Your task to perform on an android device: What is the news today? Image 0: 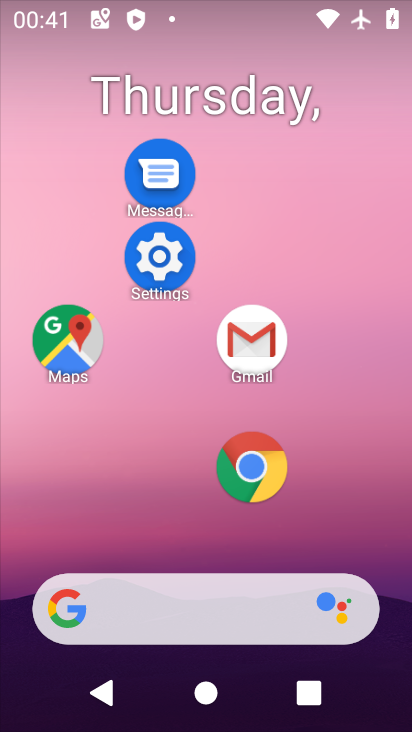
Step 0: drag from (187, 515) to (235, 173)
Your task to perform on an android device: What is the news today? Image 1: 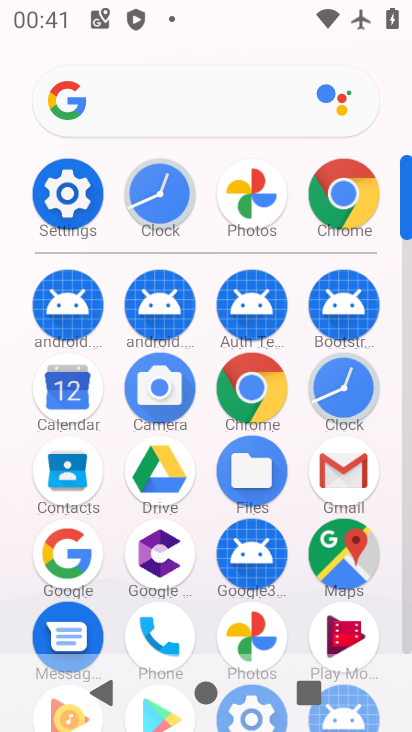
Step 1: click (181, 115)
Your task to perform on an android device: What is the news today? Image 2: 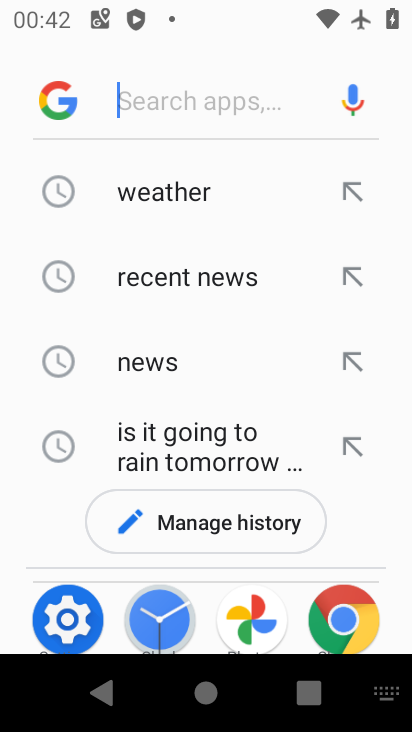
Step 2: type "news today"
Your task to perform on an android device: What is the news today? Image 3: 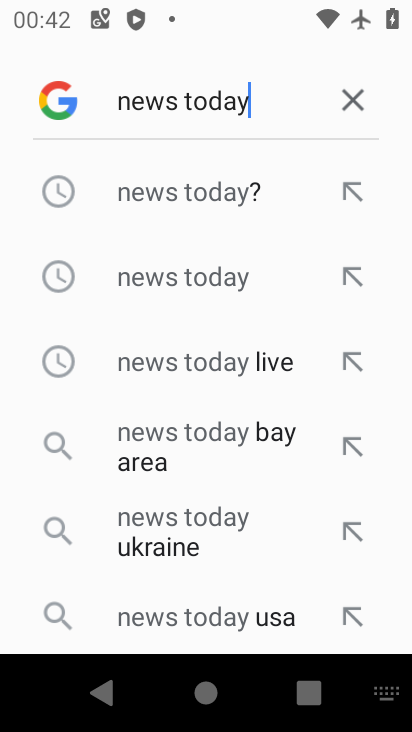
Step 3: click (184, 201)
Your task to perform on an android device: What is the news today? Image 4: 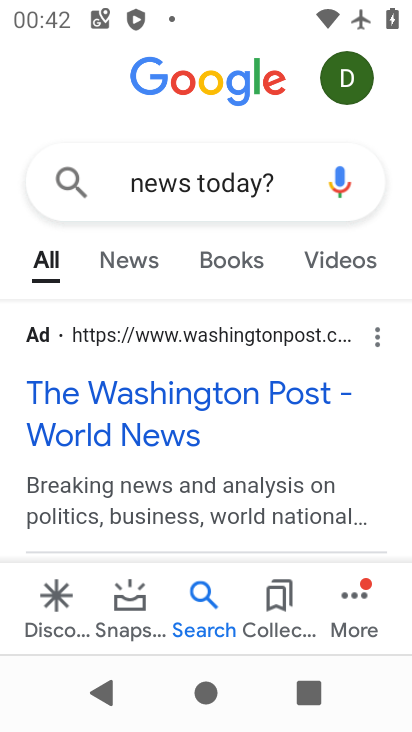
Step 4: task complete